Your task to perform on an android device: Open Chrome and go to settings Image 0: 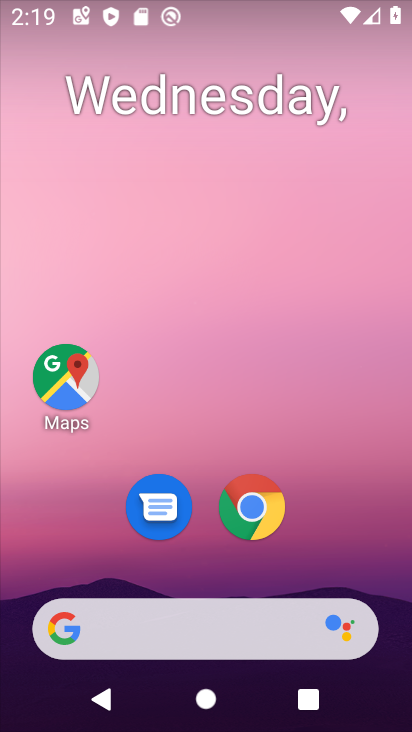
Step 0: click (249, 502)
Your task to perform on an android device: Open Chrome and go to settings Image 1: 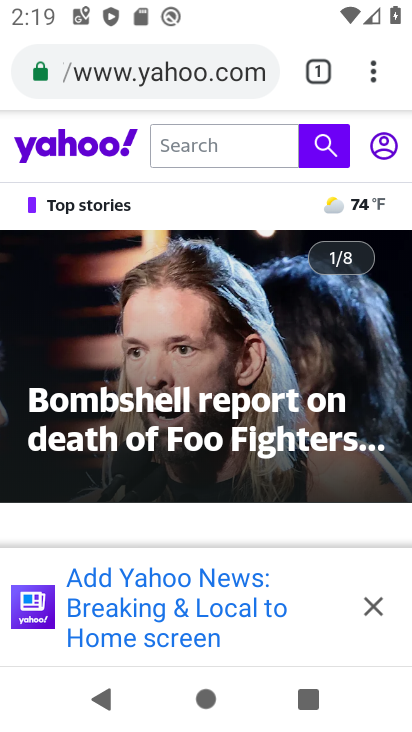
Step 1: click (364, 61)
Your task to perform on an android device: Open Chrome and go to settings Image 2: 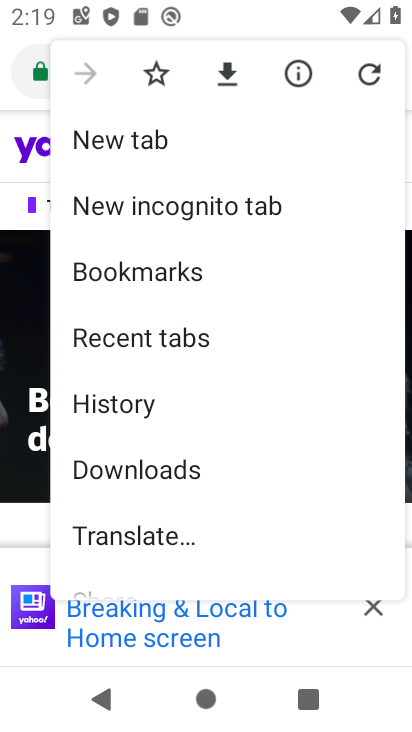
Step 2: drag from (214, 464) to (251, 109)
Your task to perform on an android device: Open Chrome and go to settings Image 3: 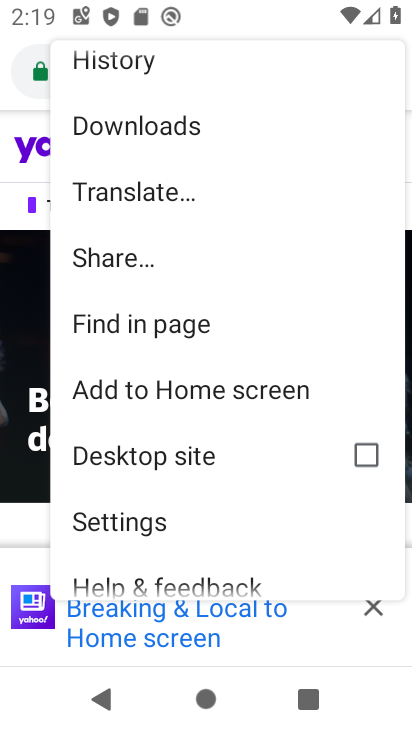
Step 3: click (133, 518)
Your task to perform on an android device: Open Chrome and go to settings Image 4: 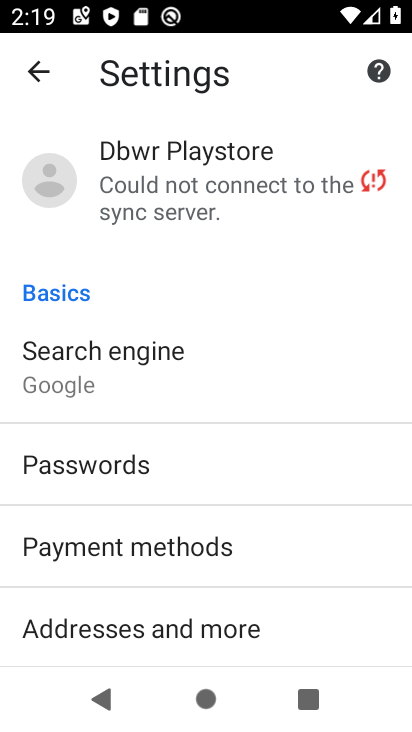
Step 4: task complete